Your task to perform on an android device: Open battery settings Image 0: 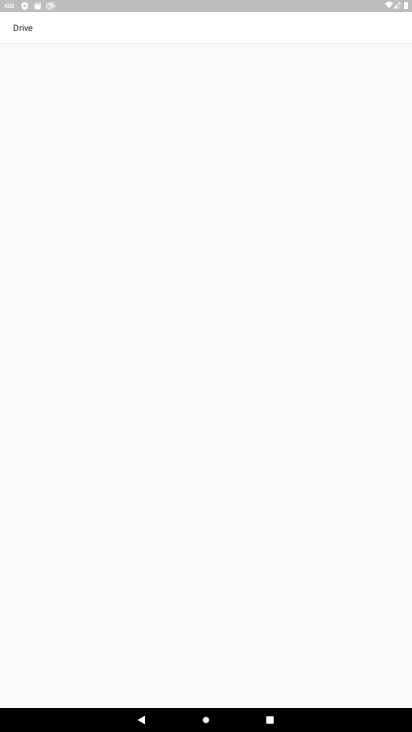
Step 0: press back button
Your task to perform on an android device: Open battery settings Image 1: 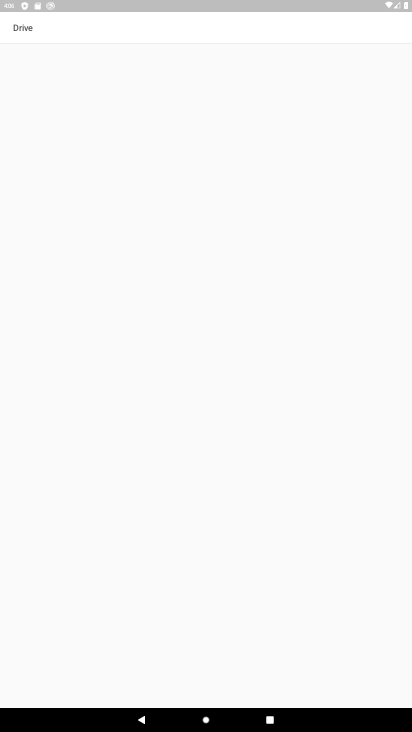
Step 1: press home button
Your task to perform on an android device: Open battery settings Image 2: 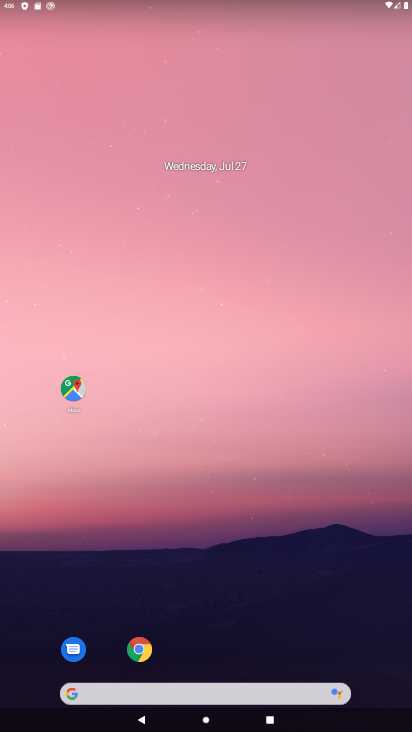
Step 2: drag from (179, 635) to (176, 52)
Your task to perform on an android device: Open battery settings Image 3: 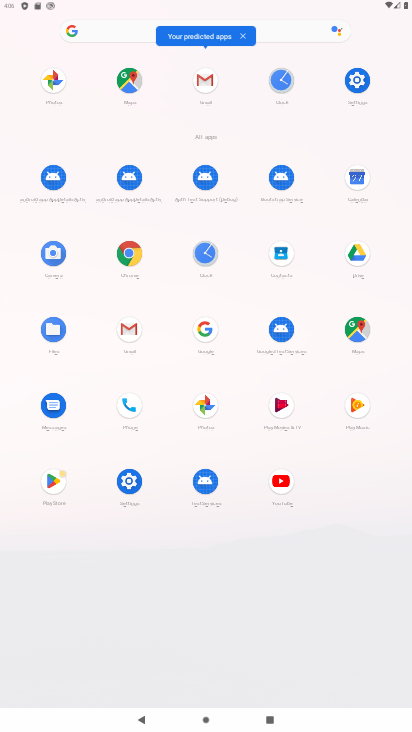
Step 3: click (358, 78)
Your task to perform on an android device: Open battery settings Image 4: 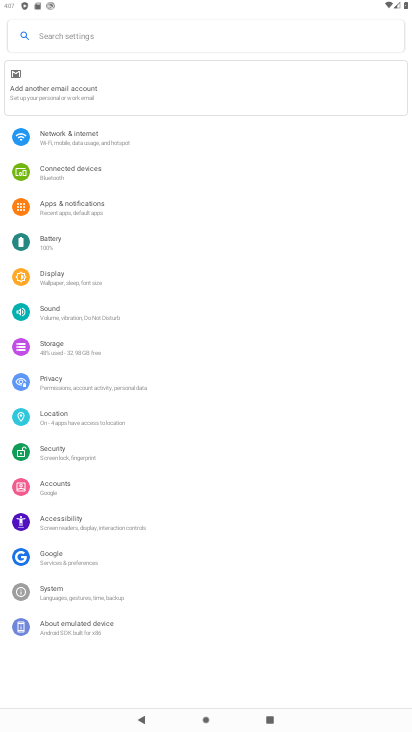
Step 4: click (58, 233)
Your task to perform on an android device: Open battery settings Image 5: 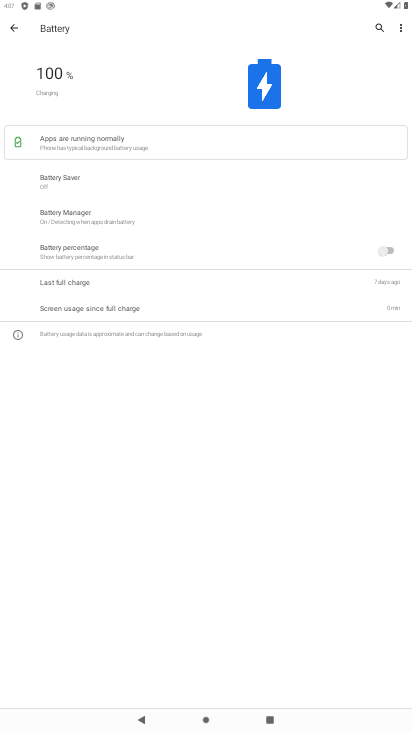
Step 5: task complete